Your task to perform on an android device: Open the Google play store app Image 0: 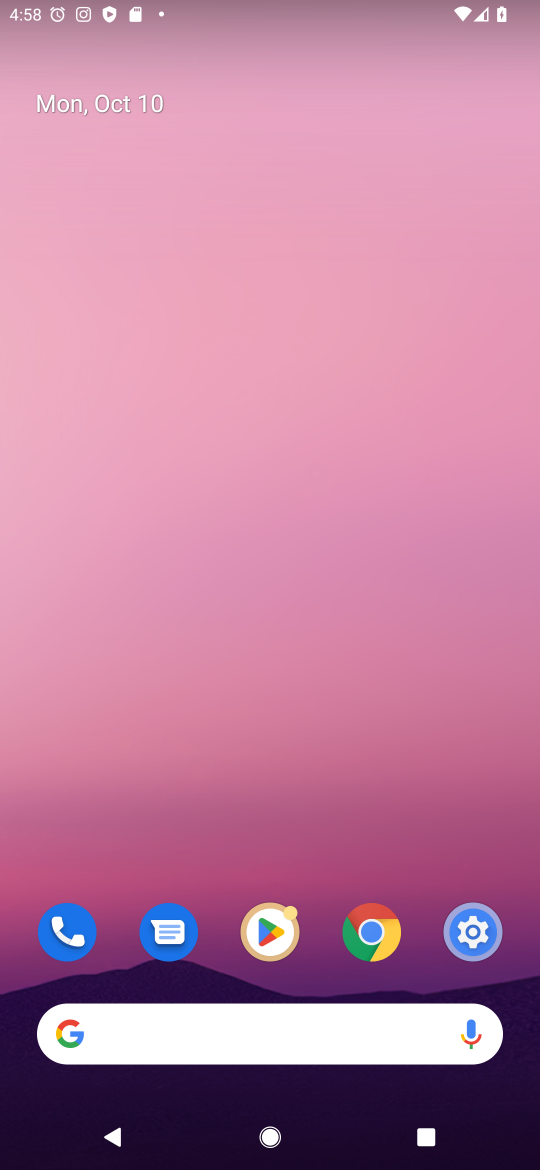
Step 0: press home button
Your task to perform on an android device: Open the Google play store app Image 1: 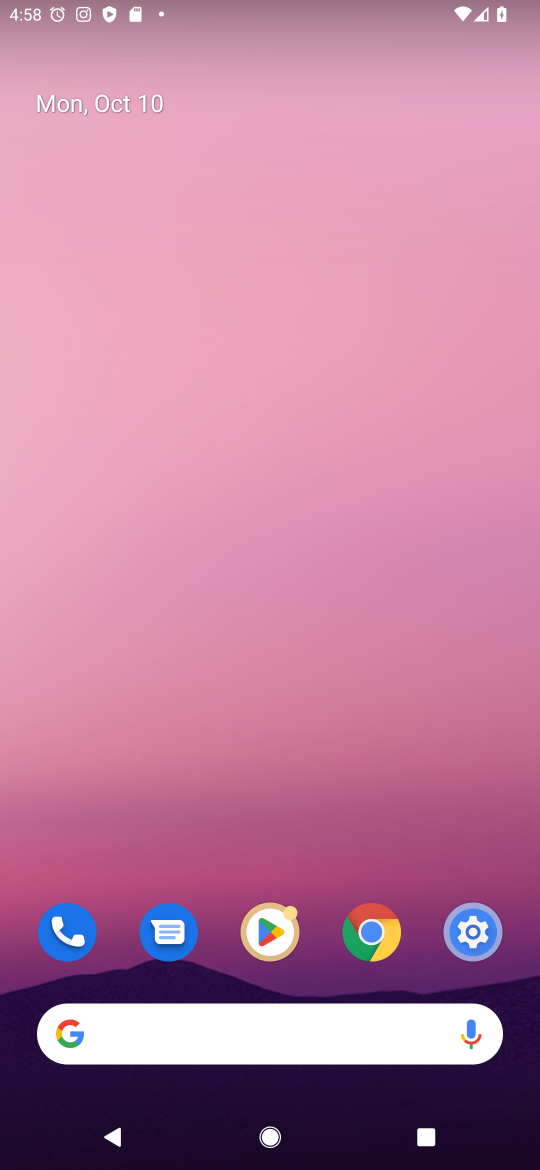
Step 1: drag from (475, 833) to (477, 237)
Your task to perform on an android device: Open the Google play store app Image 2: 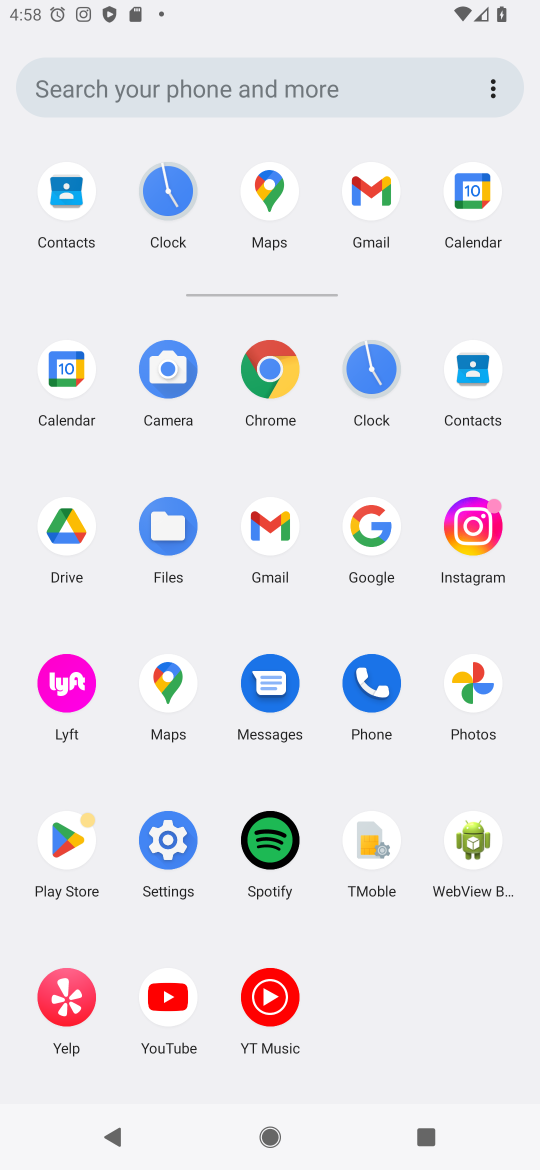
Step 2: click (65, 844)
Your task to perform on an android device: Open the Google play store app Image 3: 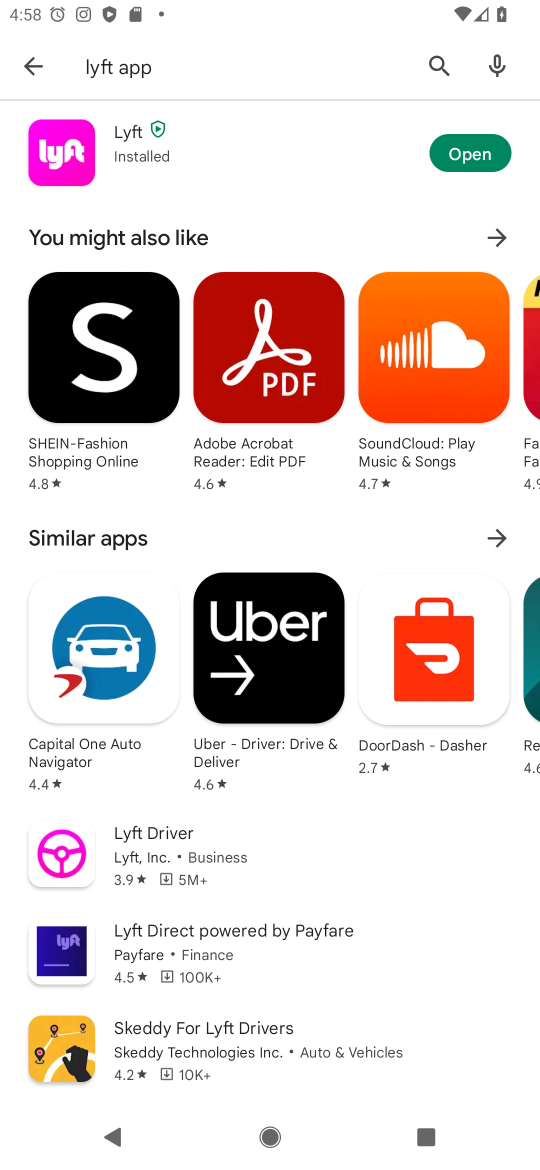
Step 3: task complete